Your task to perform on an android device: Open the calendar and show me this week's events Image 0: 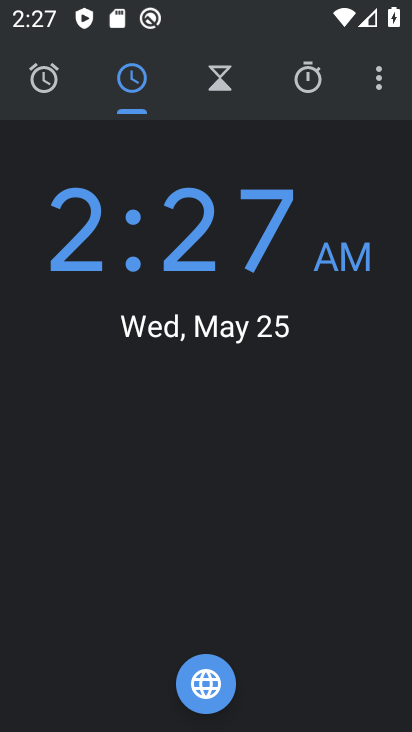
Step 0: press home button
Your task to perform on an android device: Open the calendar and show me this week's events Image 1: 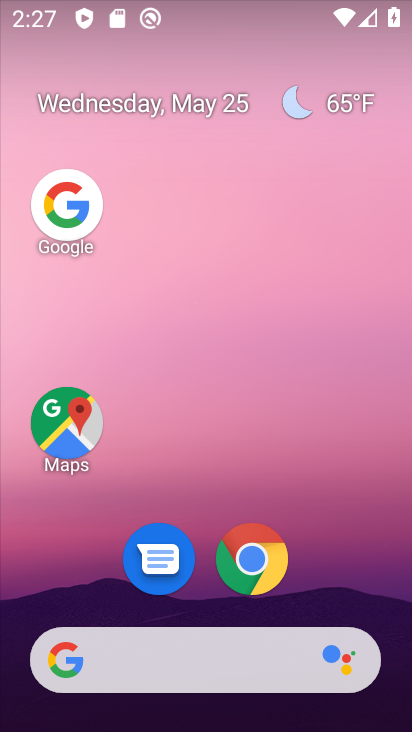
Step 1: drag from (348, 360) to (344, 173)
Your task to perform on an android device: Open the calendar and show me this week's events Image 2: 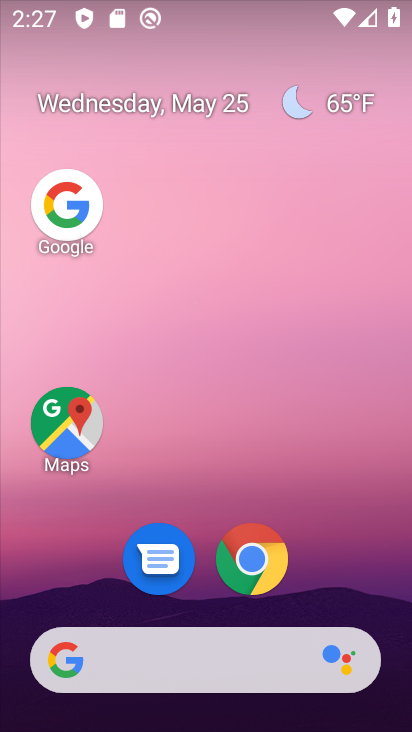
Step 2: drag from (337, 611) to (341, 92)
Your task to perform on an android device: Open the calendar and show me this week's events Image 3: 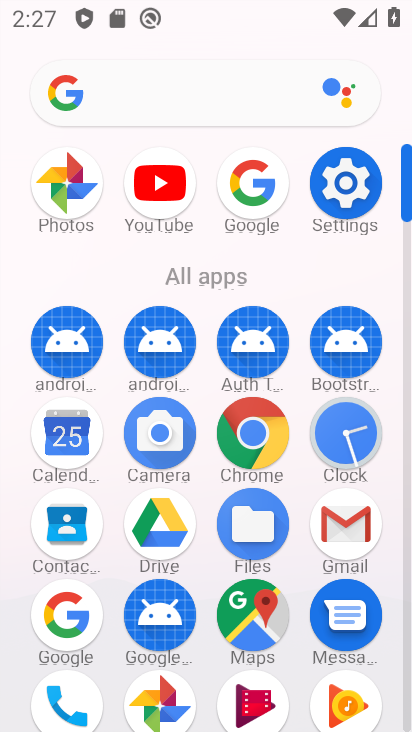
Step 3: drag from (69, 428) to (154, 250)
Your task to perform on an android device: Open the calendar and show me this week's events Image 4: 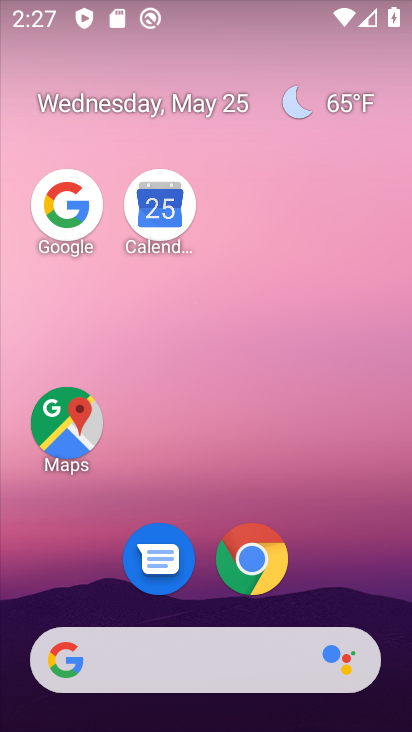
Step 4: click (175, 225)
Your task to perform on an android device: Open the calendar and show me this week's events Image 5: 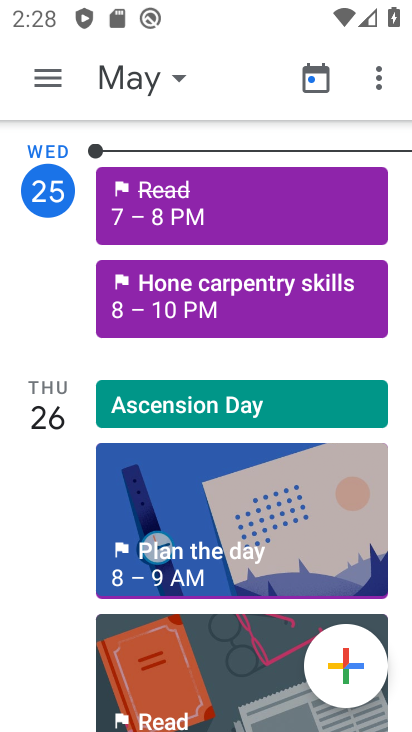
Step 5: click (51, 76)
Your task to perform on an android device: Open the calendar and show me this week's events Image 6: 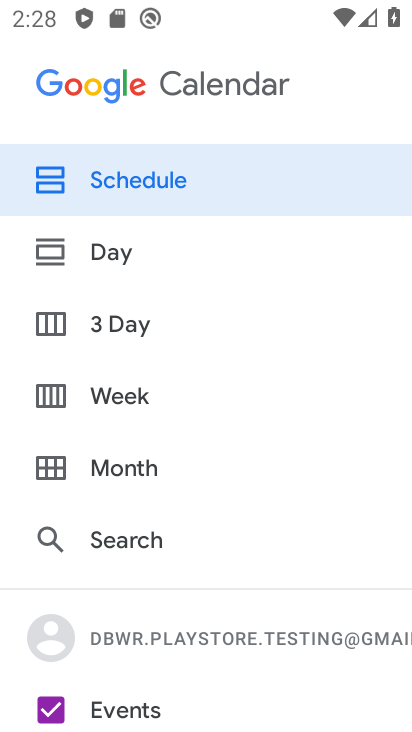
Step 6: click (155, 392)
Your task to perform on an android device: Open the calendar and show me this week's events Image 7: 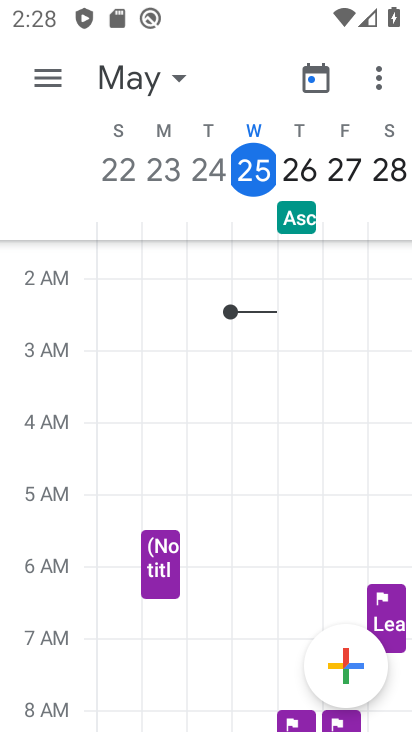
Step 7: task complete